Your task to perform on an android device: Open wifi settings Image 0: 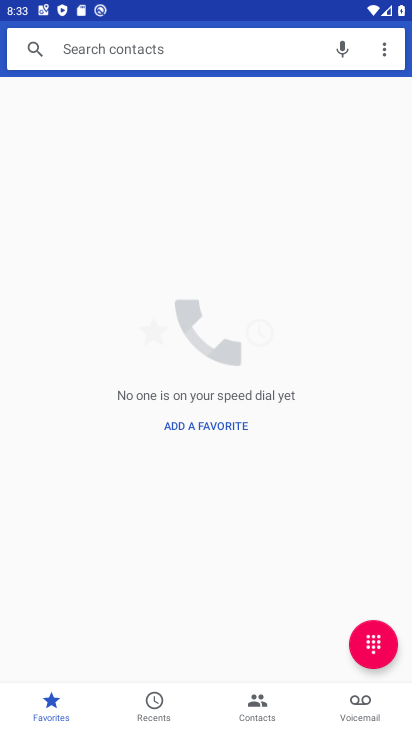
Step 0: press home button
Your task to perform on an android device: Open wifi settings Image 1: 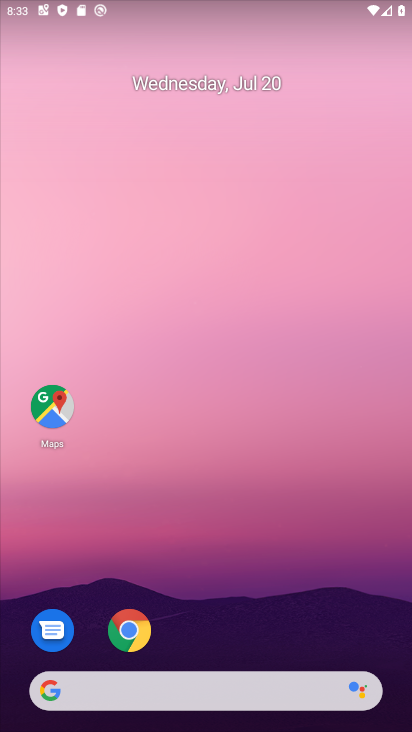
Step 1: drag from (390, 690) to (347, 221)
Your task to perform on an android device: Open wifi settings Image 2: 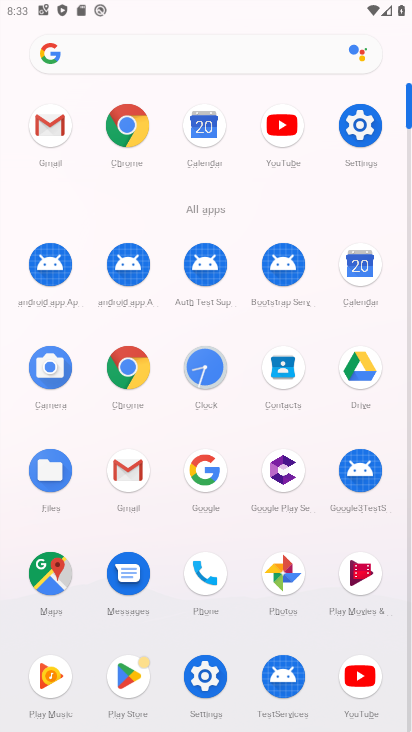
Step 2: click (374, 132)
Your task to perform on an android device: Open wifi settings Image 3: 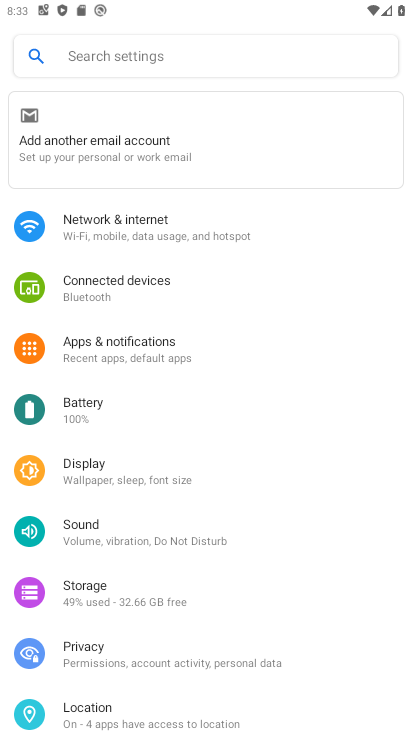
Step 3: click (92, 229)
Your task to perform on an android device: Open wifi settings Image 4: 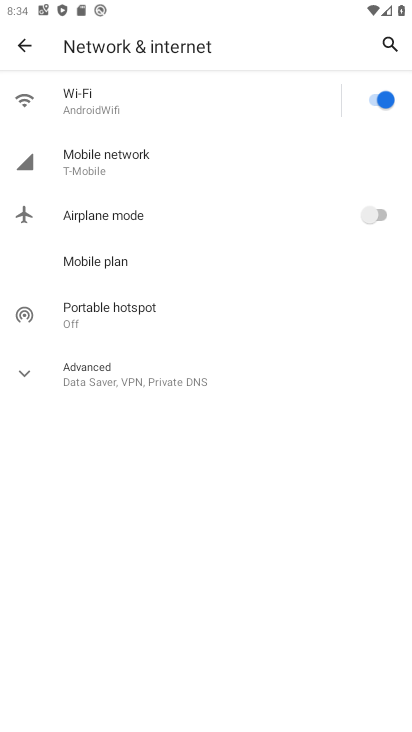
Step 4: click (176, 107)
Your task to perform on an android device: Open wifi settings Image 5: 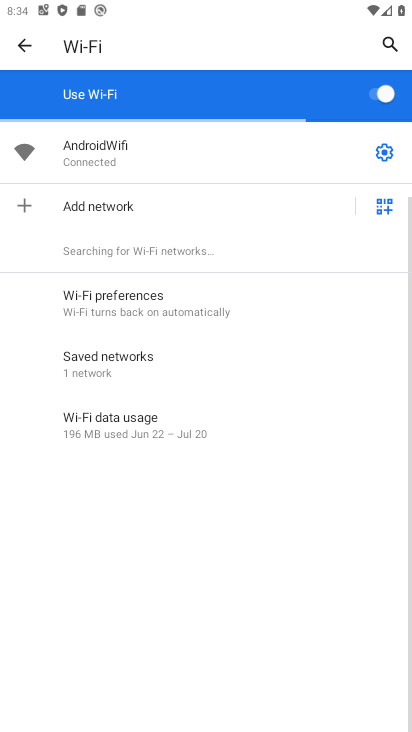
Step 5: click (388, 151)
Your task to perform on an android device: Open wifi settings Image 6: 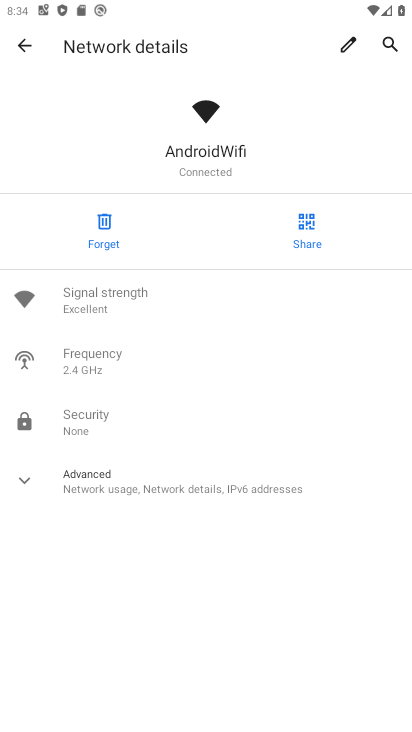
Step 6: click (18, 481)
Your task to perform on an android device: Open wifi settings Image 7: 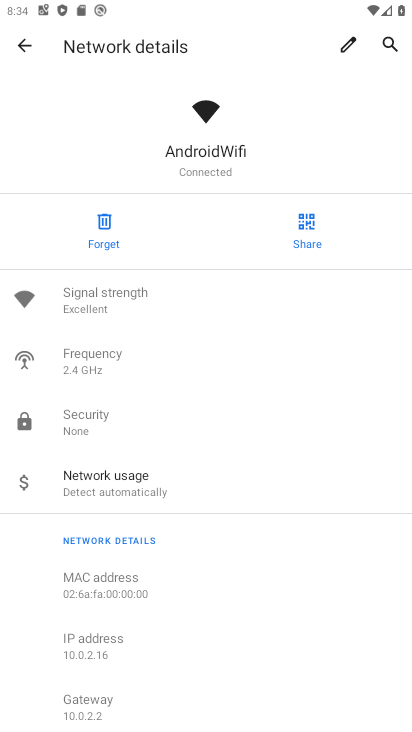
Step 7: task complete